Your task to perform on an android device: Open the map Image 0: 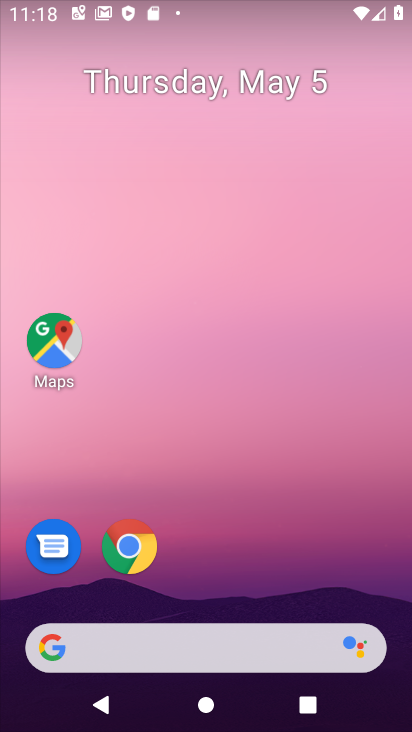
Step 0: drag from (324, 566) to (291, 161)
Your task to perform on an android device: Open the map Image 1: 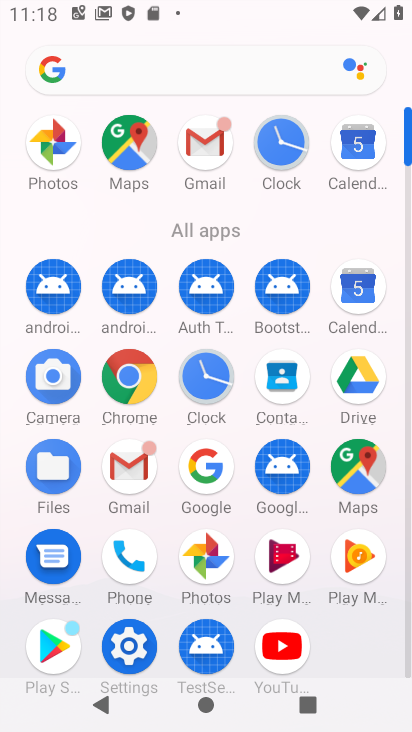
Step 1: click (354, 467)
Your task to perform on an android device: Open the map Image 2: 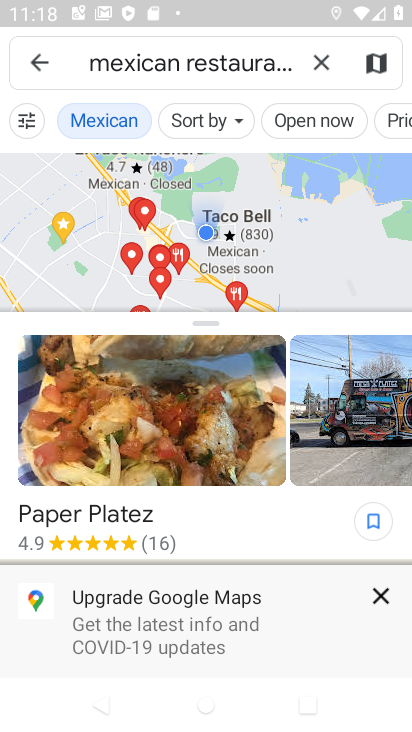
Step 2: task complete